Your task to perform on an android device: Check the weather Image 0: 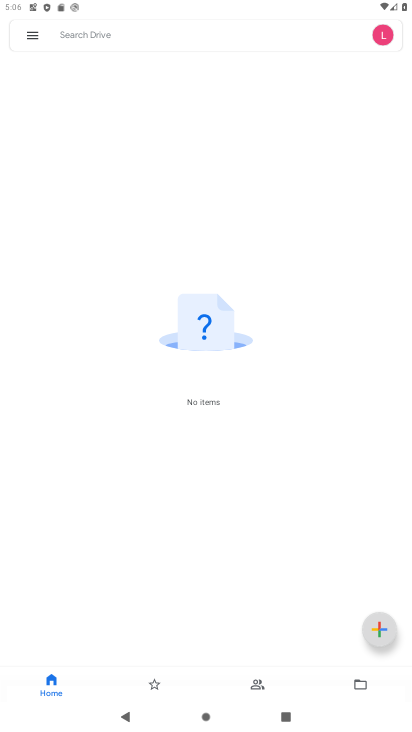
Step 0: press home button
Your task to perform on an android device: Check the weather Image 1: 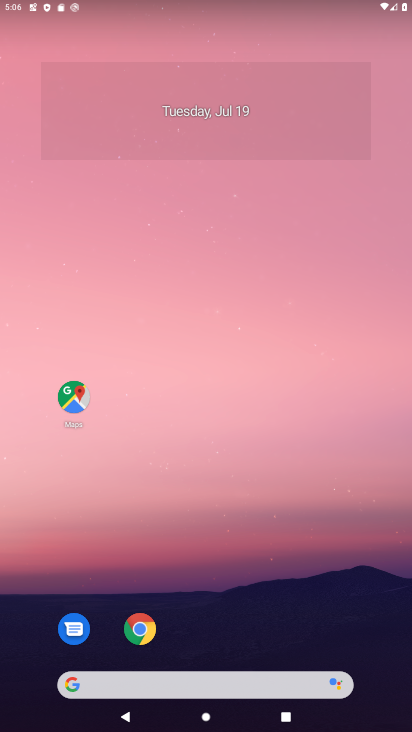
Step 1: click (78, 682)
Your task to perform on an android device: Check the weather Image 2: 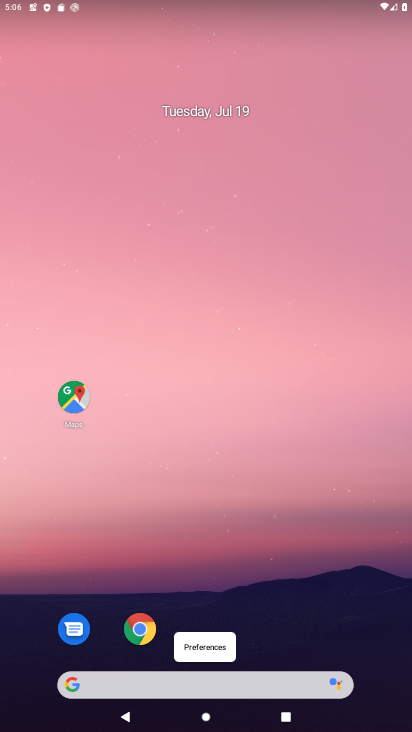
Step 2: click (76, 682)
Your task to perform on an android device: Check the weather Image 3: 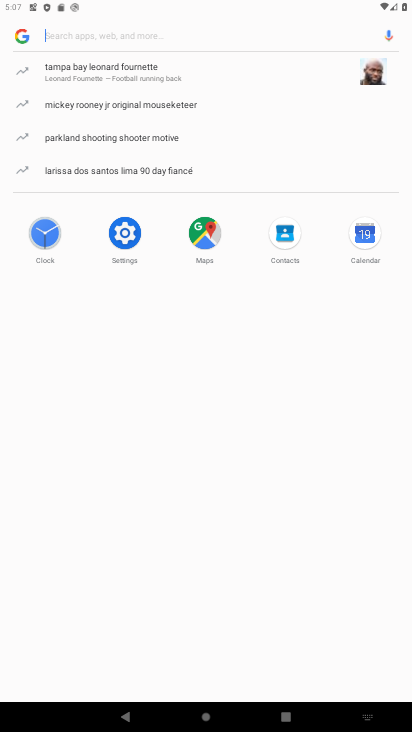
Step 3: type " weather"
Your task to perform on an android device: Check the weather Image 4: 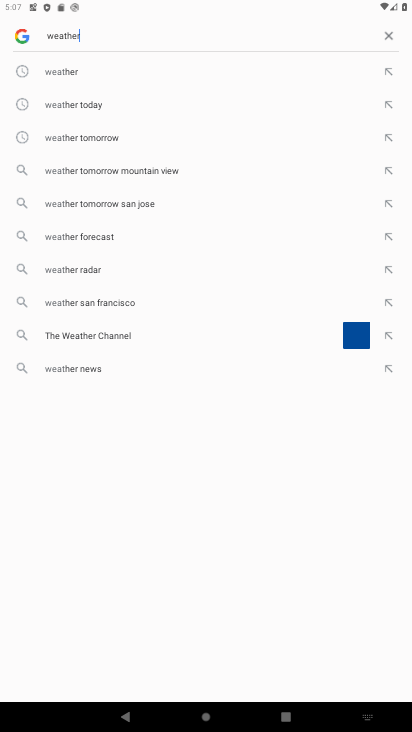
Step 4: press enter
Your task to perform on an android device: Check the weather Image 5: 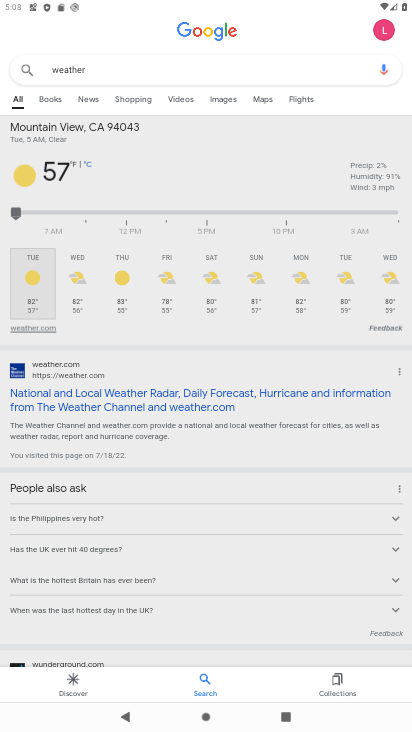
Step 5: task complete